Your task to perform on an android device: Search for pizza restaurants on Maps Image 0: 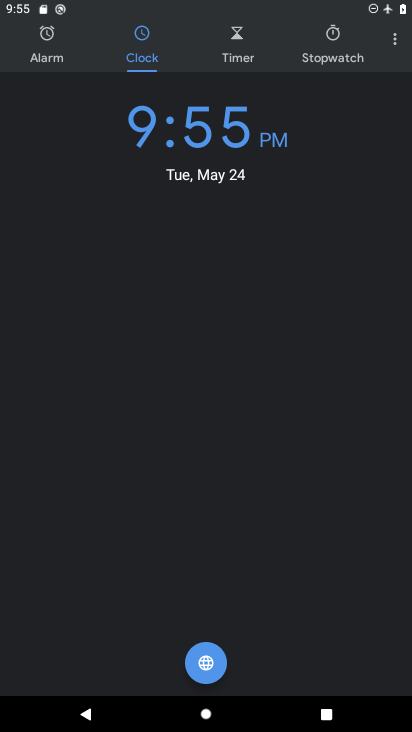
Step 0: press home button
Your task to perform on an android device: Search for pizza restaurants on Maps Image 1: 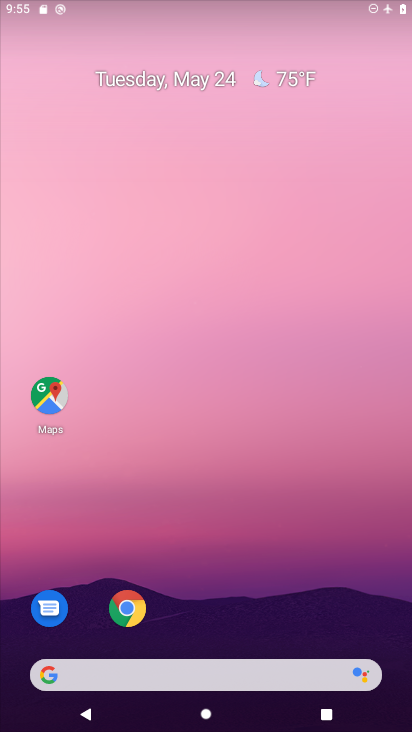
Step 1: click (39, 386)
Your task to perform on an android device: Search for pizza restaurants on Maps Image 2: 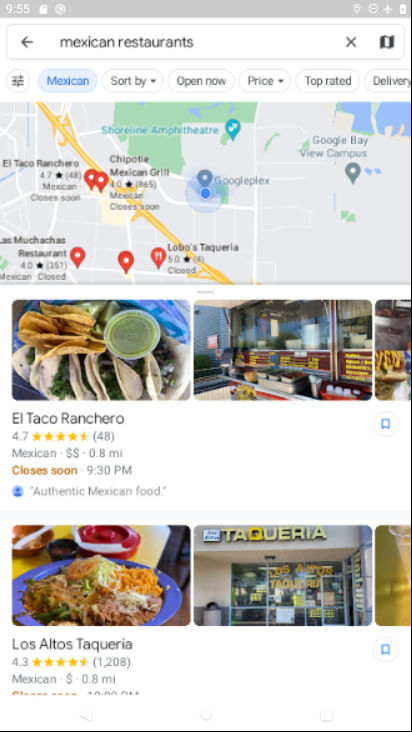
Step 2: click (222, 42)
Your task to perform on an android device: Search for pizza restaurants on Maps Image 3: 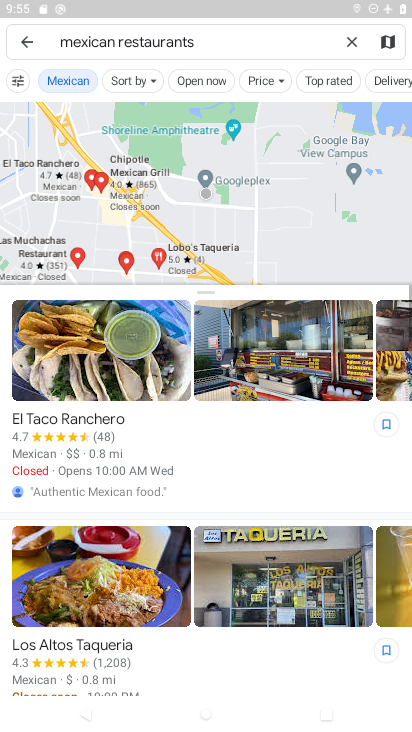
Step 3: click (347, 38)
Your task to perform on an android device: Search for pizza restaurants on Maps Image 4: 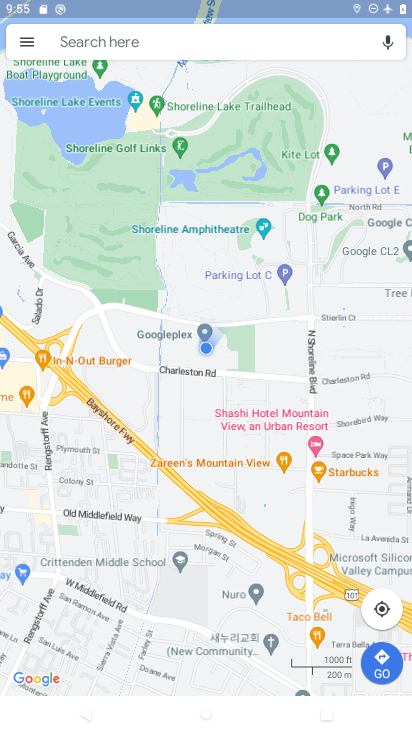
Step 4: click (178, 35)
Your task to perform on an android device: Search for pizza restaurants on Maps Image 5: 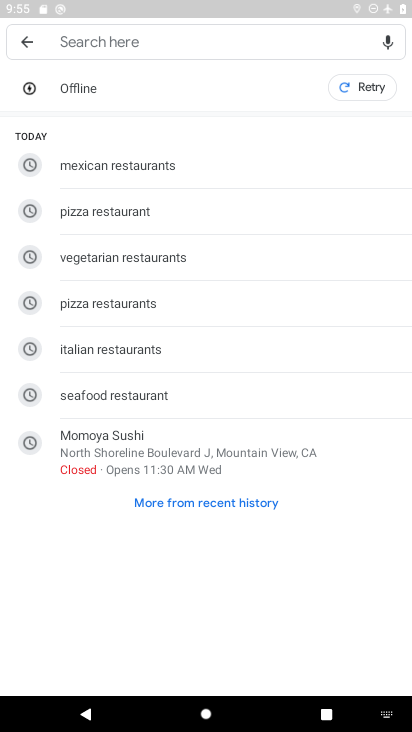
Step 5: click (108, 308)
Your task to perform on an android device: Search for pizza restaurants on Maps Image 6: 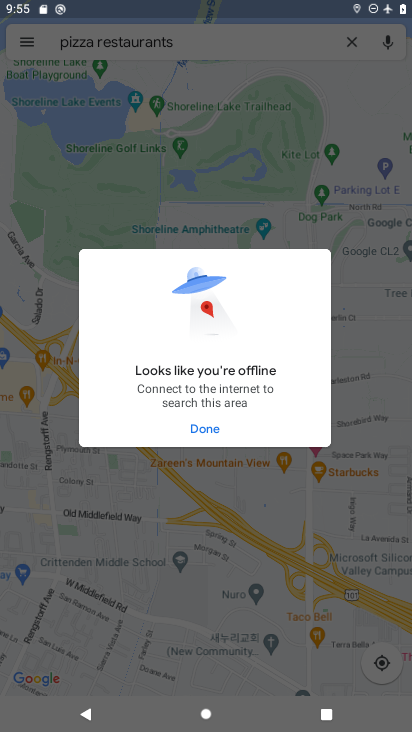
Step 6: click (210, 431)
Your task to perform on an android device: Search for pizza restaurants on Maps Image 7: 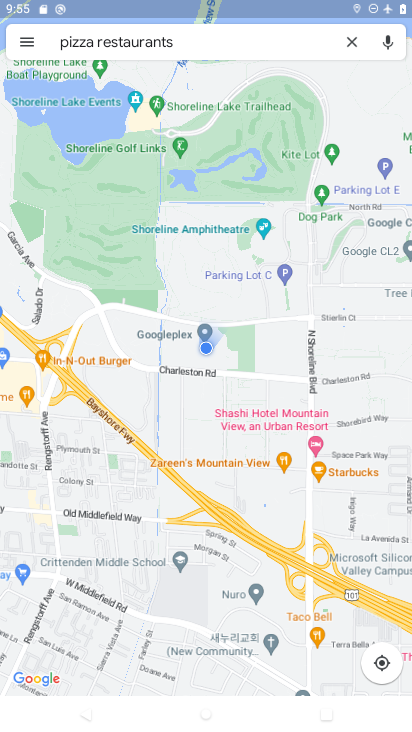
Step 7: task complete